Your task to perform on an android device: check google app version Image 0: 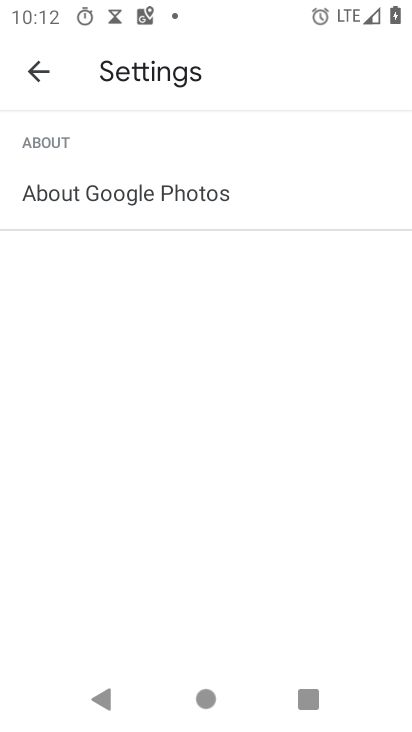
Step 0: press home button
Your task to perform on an android device: check google app version Image 1: 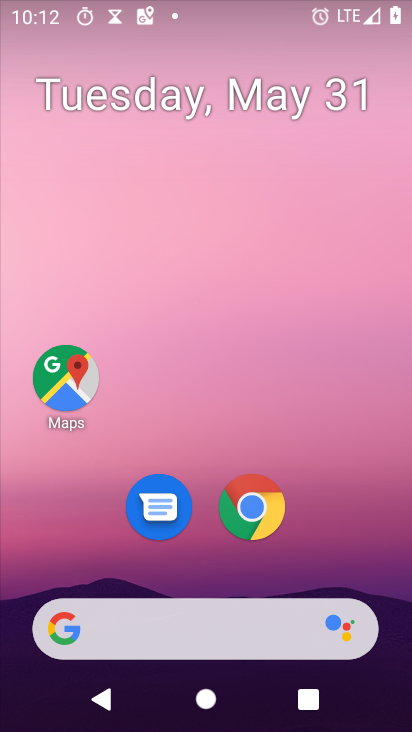
Step 1: drag from (13, 633) to (214, 236)
Your task to perform on an android device: check google app version Image 2: 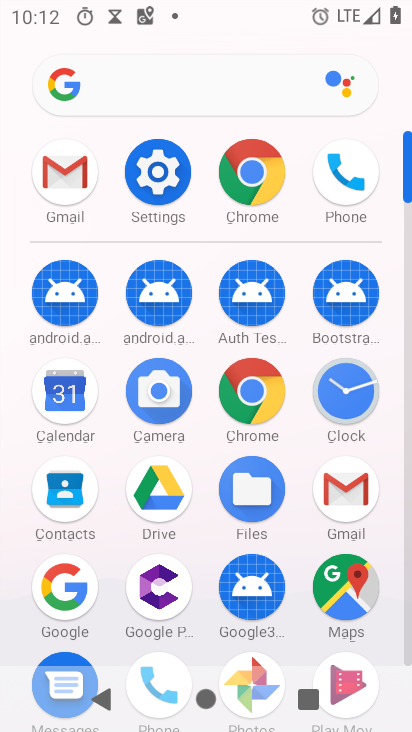
Step 2: click (261, 605)
Your task to perform on an android device: check google app version Image 3: 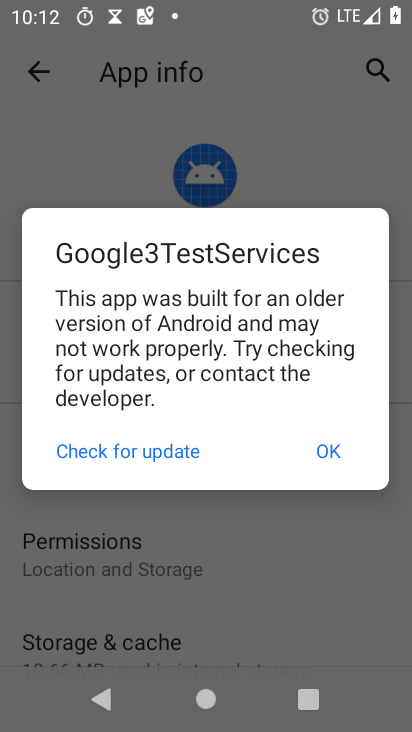
Step 3: click (333, 452)
Your task to perform on an android device: check google app version Image 4: 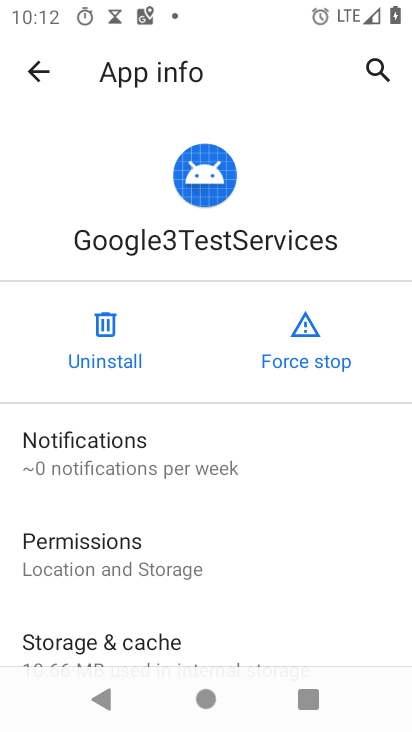
Step 4: drag from (5, 463) to (176, 91)
Your task to perform on an android device: check google app version Image 5: 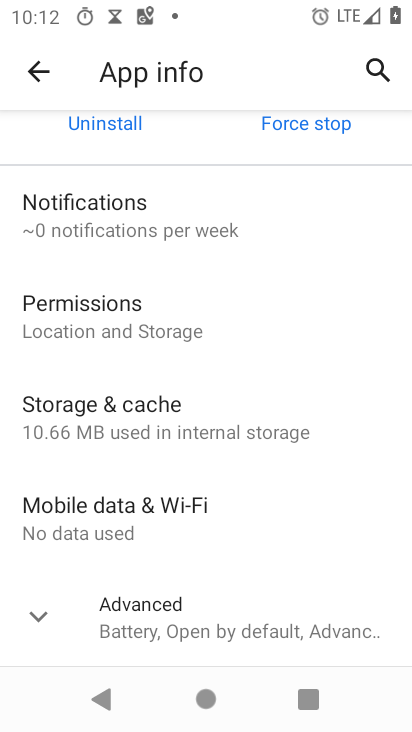
Step 5: drag from (11, 576) to (266, 189)
Your task to perform on an android device: check google app version Image 6: 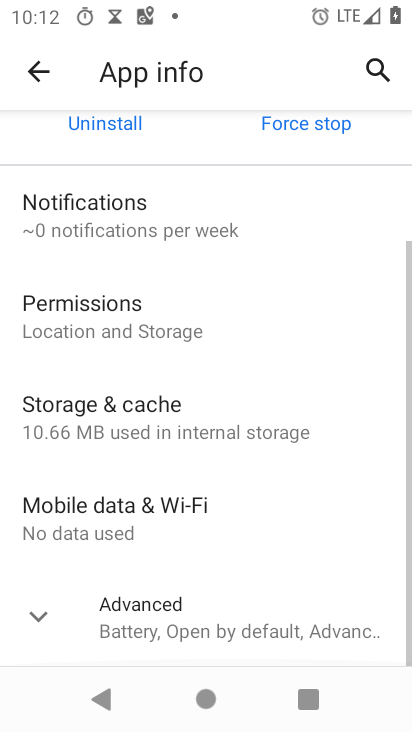
Step 6: click (213, 619)
Your task to perform on an android device: check google app version Image 7: 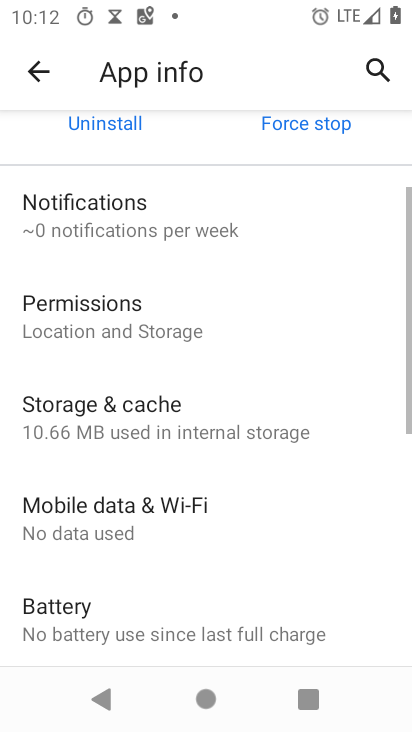
Step 7: drag from (41, 569) to (314, 94)
Your task to perform on an android device: check google app version Image 8: 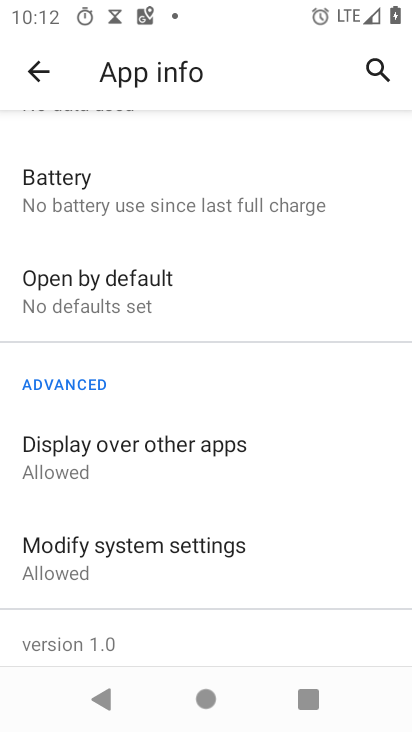
Step 8: drag from (21, 548) to (215, 223)
Your task to perform on an android device: check google app version Image 9: 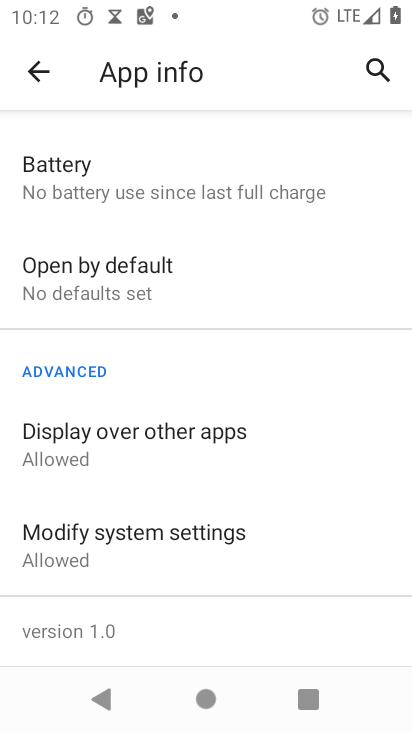
Step 9: click (55, 624)
Your task to perform on an android device: check google app version Image 10: 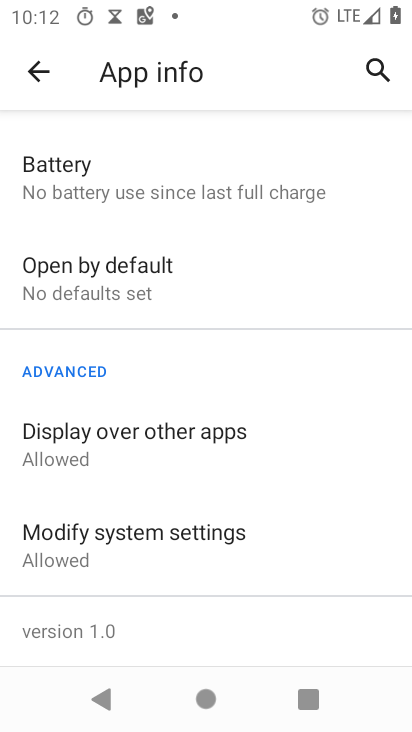
Step 10: task complete